Your task to perform on an android device: open chrome privacy settings Image 0: 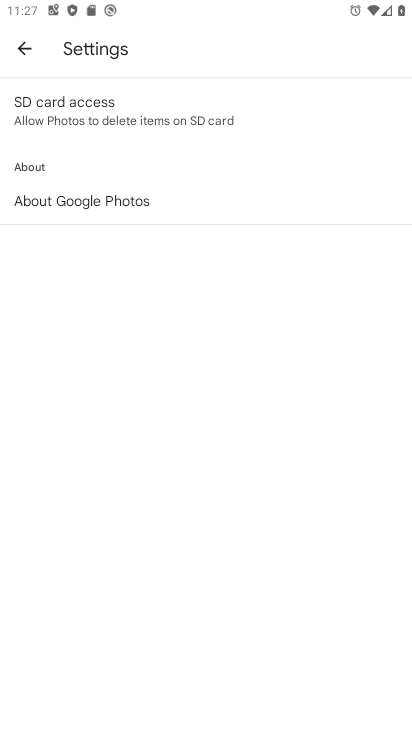
Step 0: press home button
Your task to perform on an android device: open chrome privacy settings Image 1: 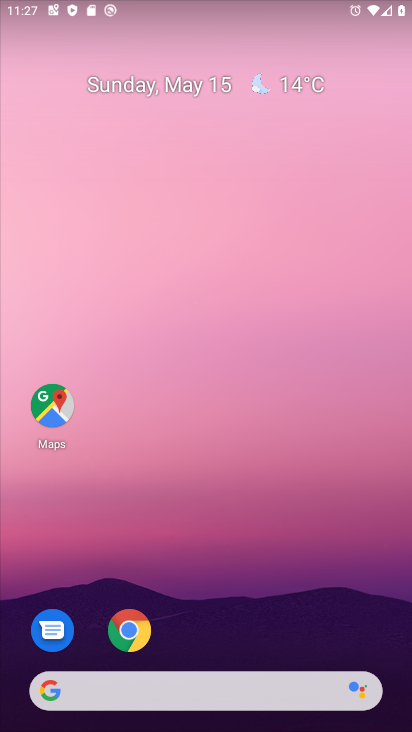
Step 1: click (126, 632)
Your task to perform on an android device: open chrome privacy settings Image 2: 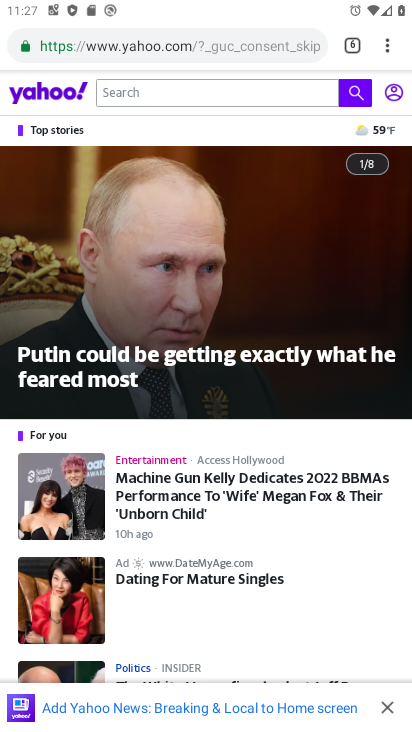
Step 2: click (388, 50)
Your task to perform on an android device: open chrome privacy settings Image 3: 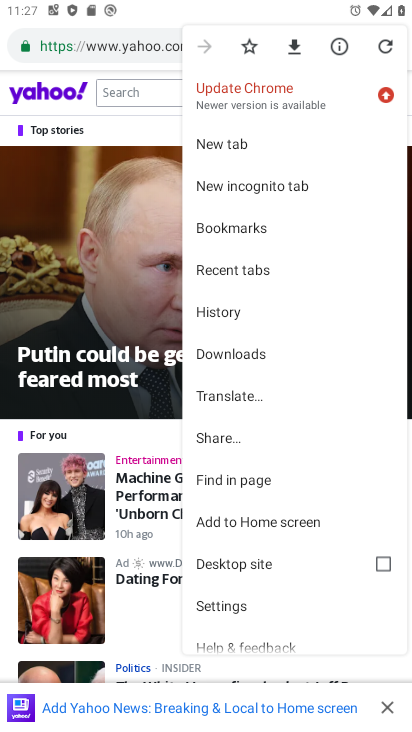
Step 3: click (224, 605)
Your task to perform on an android device: open chrome privacy settings Image 4: 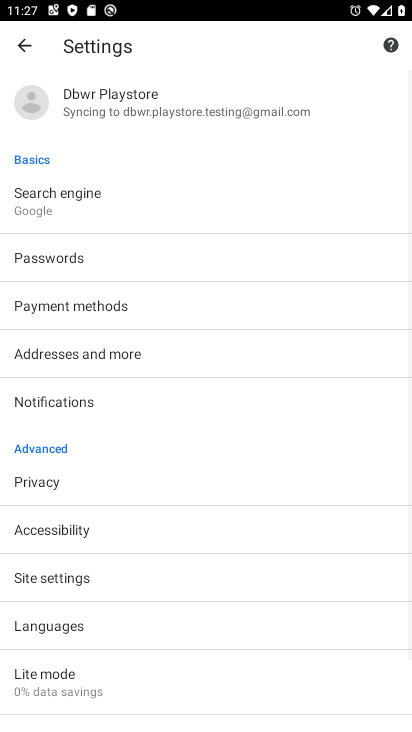
Step 4: drag from (84, 654) to (86, 440)
Your task to perform on an android device: open chrome privacy settings Image 5: 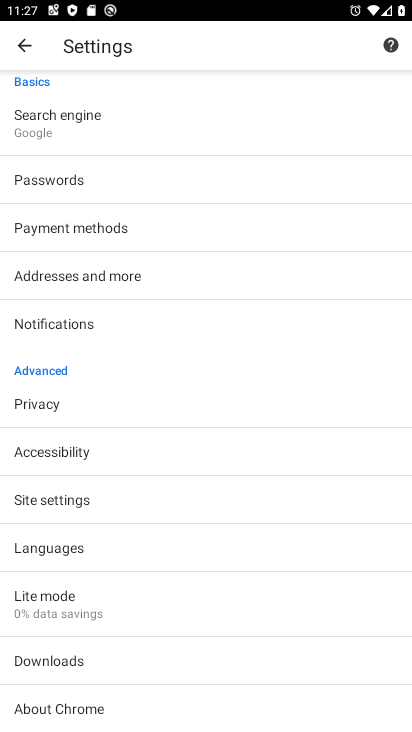
Step 5: click (43, 404)
Your task to perform on an android device: open chrome privacy settings Image 6: 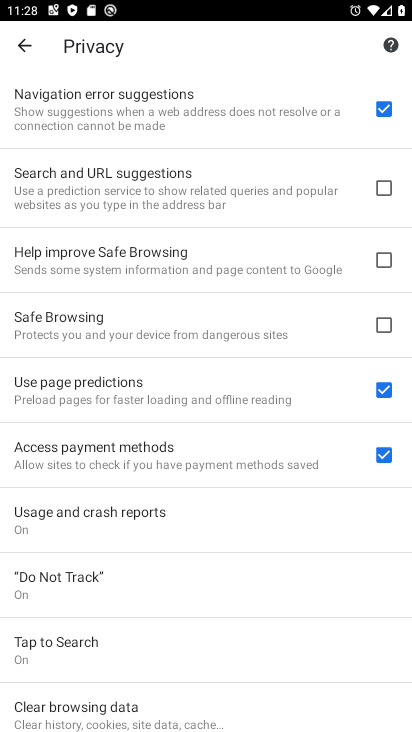
Step 6: task complete